Your task to perform on an android device: see creations saved in the google photos Image 0: 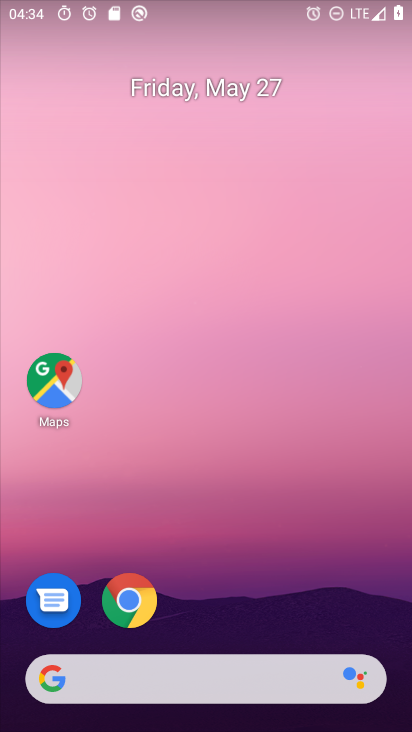
Step 0: drag from (228, 714) to (196, 110)
Your task to perform on an android device: see creations saved in the google photos Image 1: 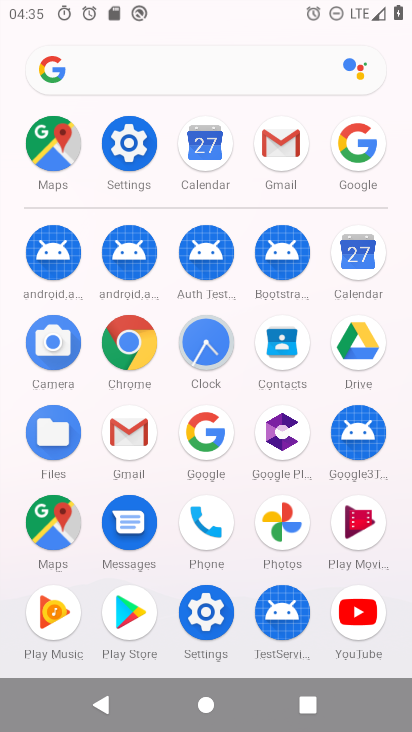
Step 1: click (287, 528)
Your task to perform on an android device: see creations saved in the google photos Image 2: 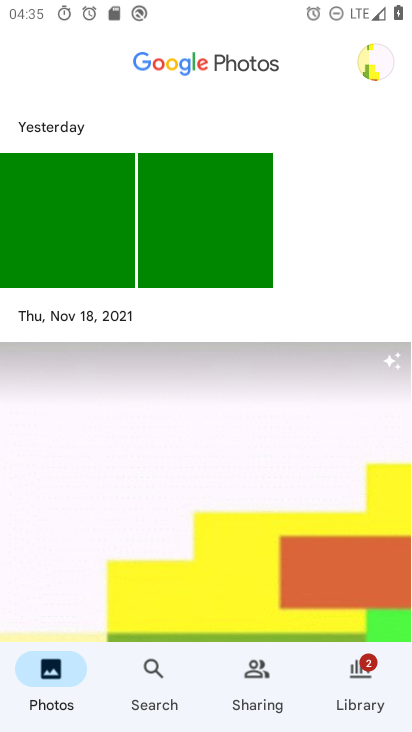
Step 2: click (154, 670)
Your task to perform on an android device: see creations saved in the google photos Image 3: 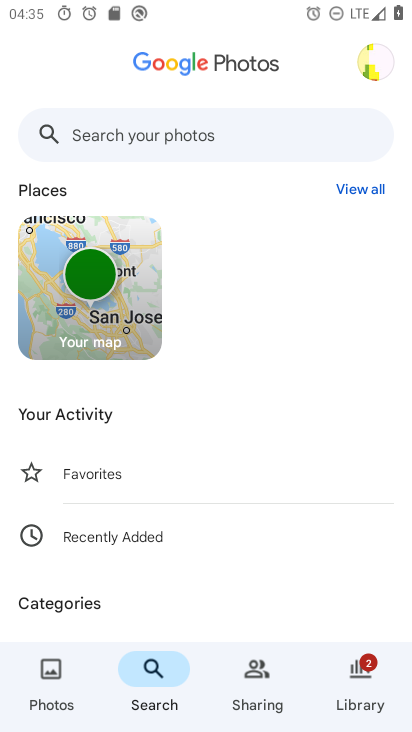
Step 3: drag from (144, 575) to (144, 208)
Your task to perform on an android device: see creations saved in the google photos Image 4: 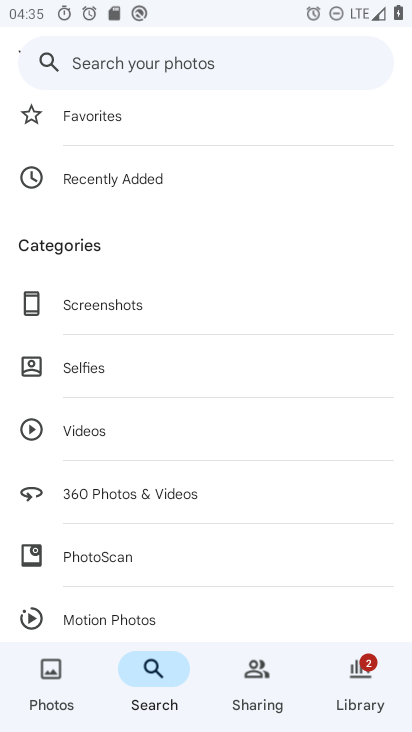
Step 4: drag from (170, 604) to (185, 298)
Your task to perform on an android device: see creations saved in the google photos Image 5: 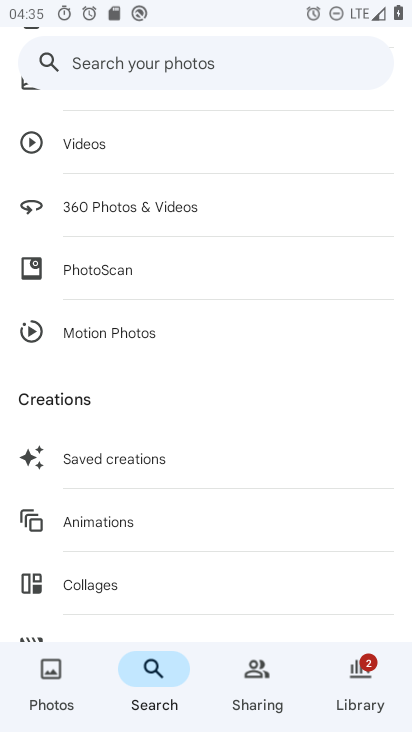
Step 5: click (125, 456)
Your task to perform on an android device: see creations saved in the google photos Image 6: 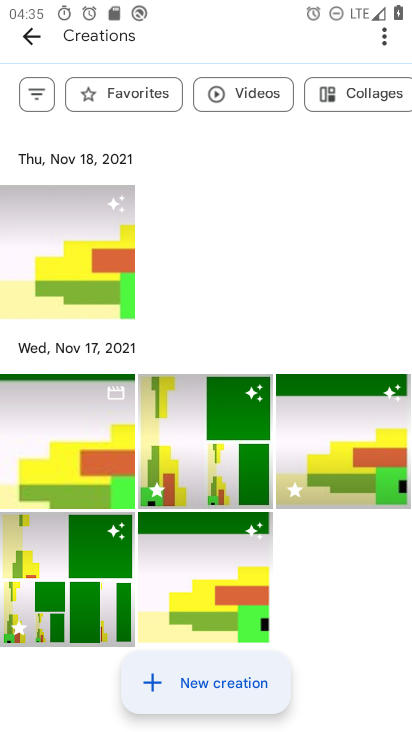
Step 6: task complete